Your task to perform on an android device: snooze an email in the gmail app Image 0: 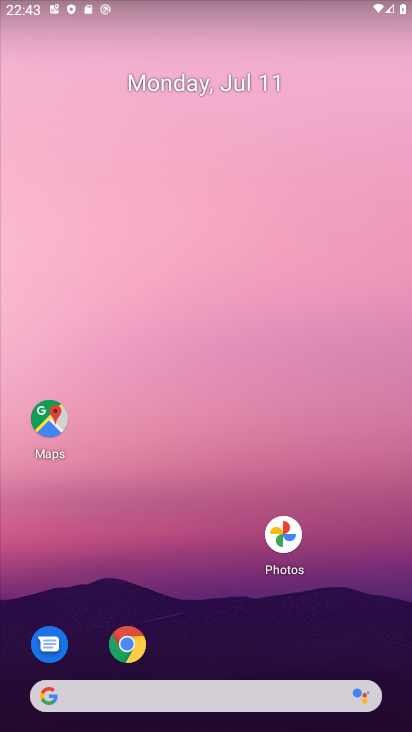
Step 0: click (274, 98)
Your task to perform on an android device: snooze an email in the gmail app Image 1: 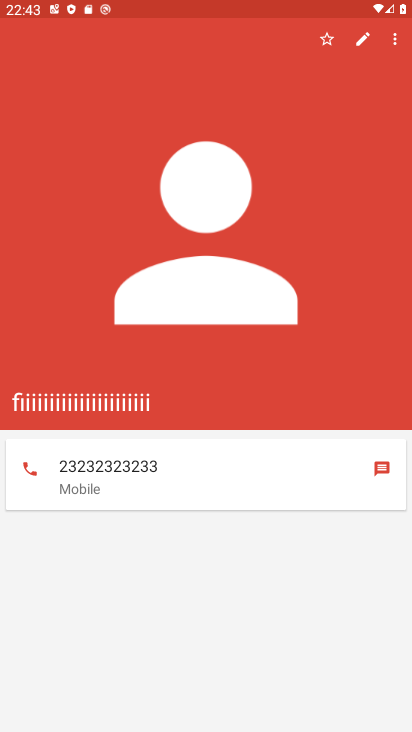
Step 1: press back button
Your task to perform on an android device: snooze an email in the gmail app Image 2: 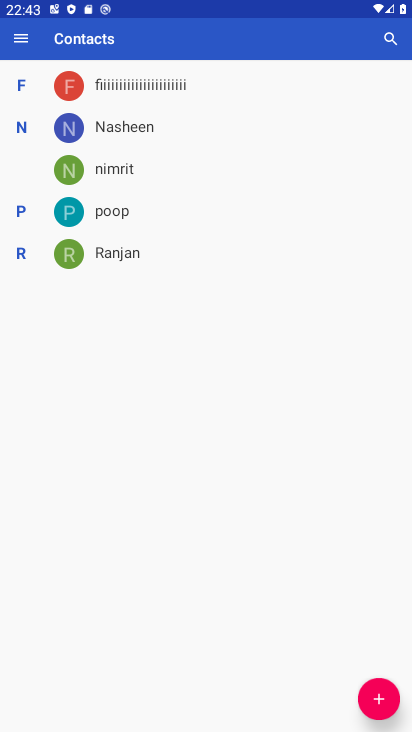
Step 2: press back button
Your task to perform on an android device: snooze an email in the gmail app Image 3: 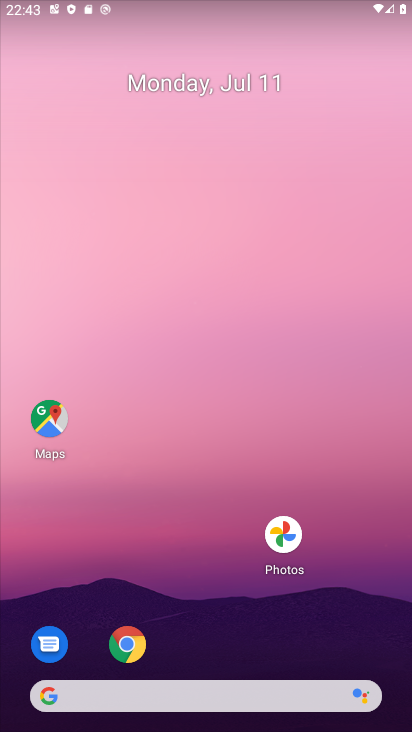
Step 3: press home button
Your task to perform on an android device: snooze an email in the gmail app Image 4: 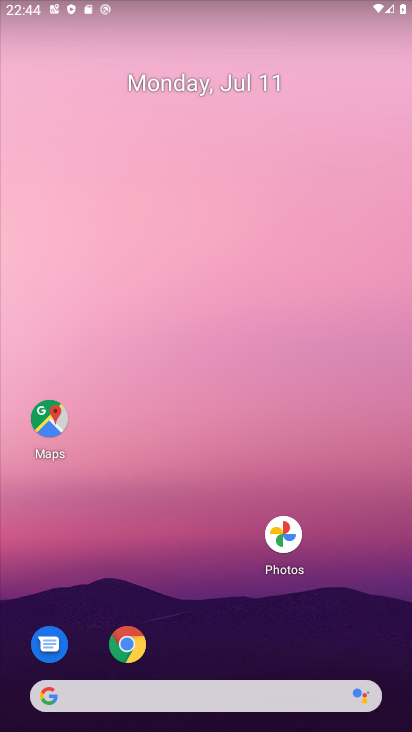
Step 4: press back button
Your task to perform on an android device: snooze an email in the gmail app Image 5: 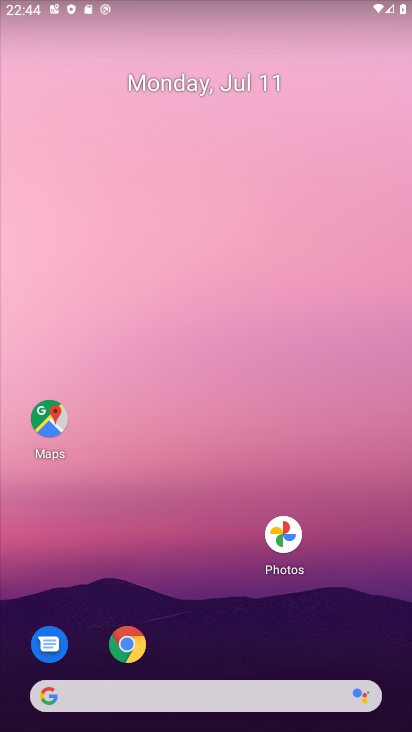
Step 5: drag from (274, 464) to (274, 176)
Your task to perform on an android device: snooze an email in the gmail app Image 6: 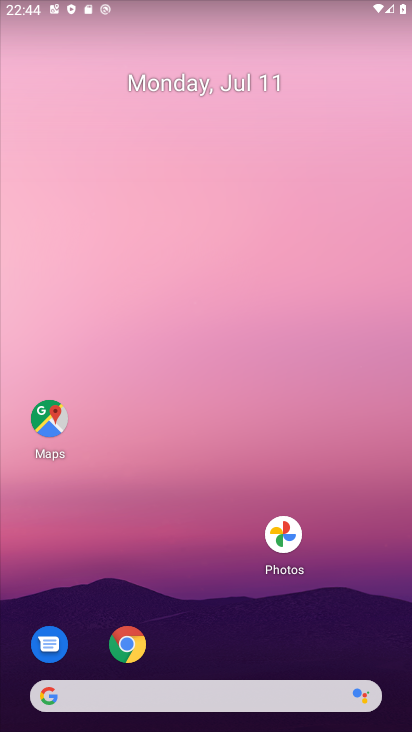
Step 6: drag from (209, 662) to (221, 191)
Your task to perform on an android device: snooze an email in the gmail app Image 7: 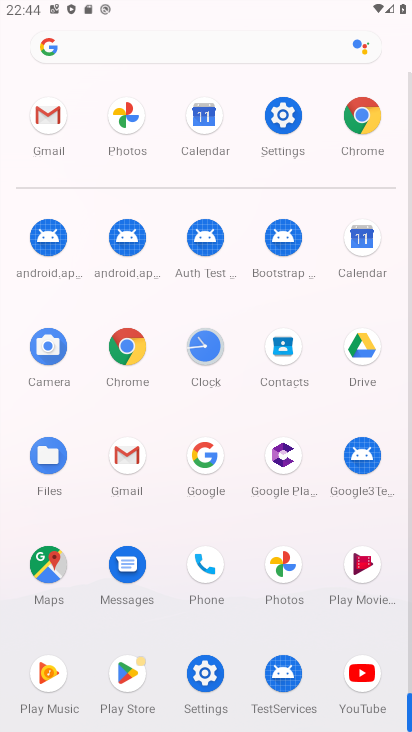
Step 7: drag from (276, 588) to (248, 191)
Your task to perform on an android device: snooze an email in the gmail app Image 8: 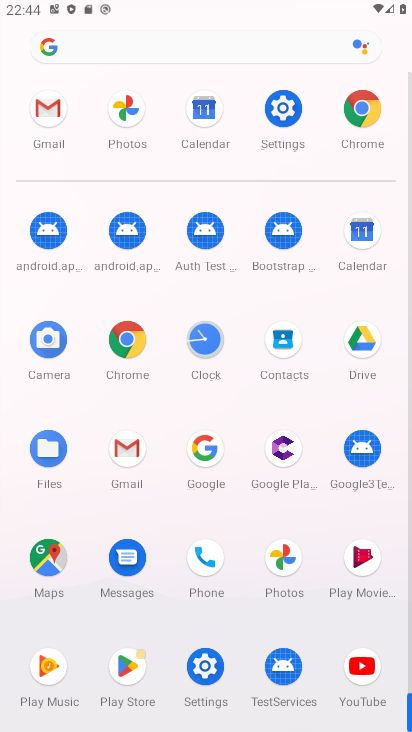
Step 8: click (278, 123)
Your task to perform on an android device: snooze an email in the gmail app Image 9: 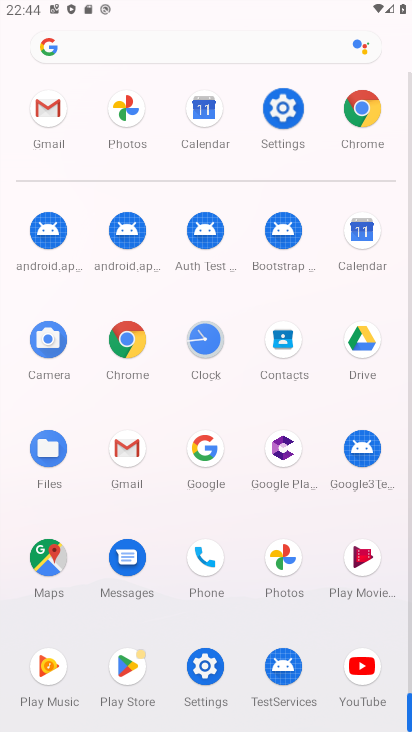
Step 9: click (278, 123)
Your task to perform on an android device: snooze an email in the gmail app Image 10: 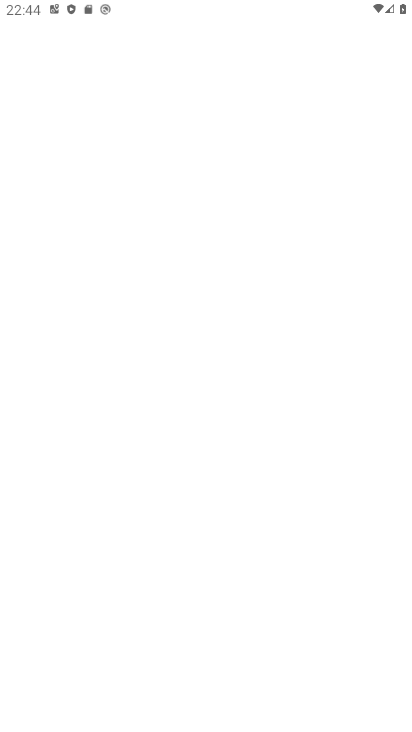
Step 10: click (282, 122)
Your task to perform on an android device: snooze an email in the gmail app Image 11: 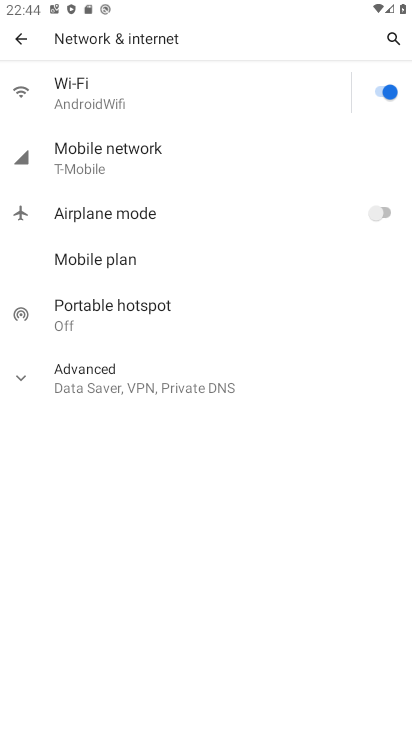
Step 11: click (18, 43)
Your task to perform on an android device: snooze an email in the gmail app Image 12: 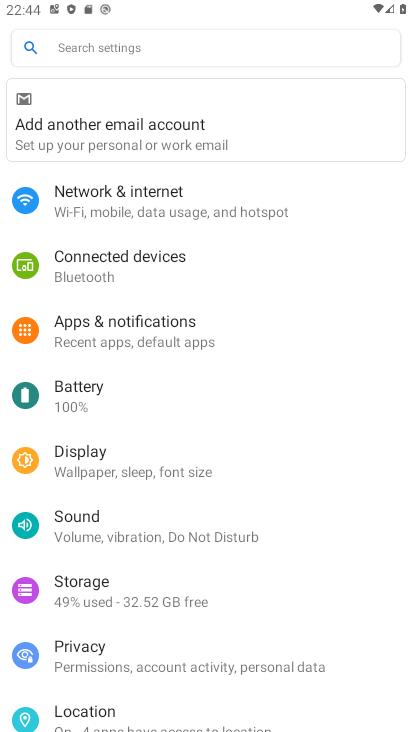
Step 12: press back button
Your task to perform on an android device: snooze an email in the gmail app Image 13: 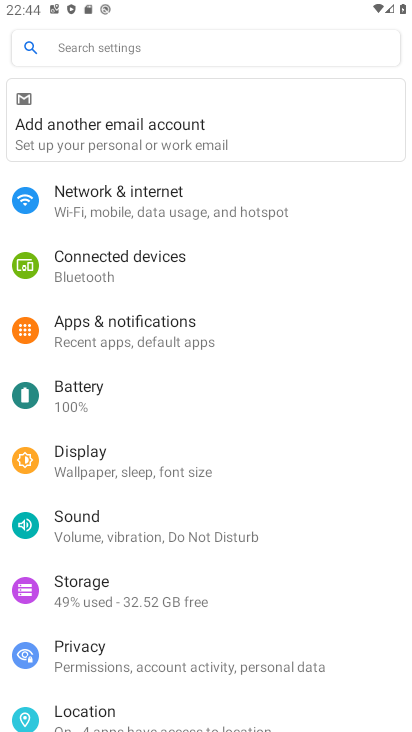
Step 13: press back button
Your task to perform on an android device: snooze an email in the gmail app Image 14: 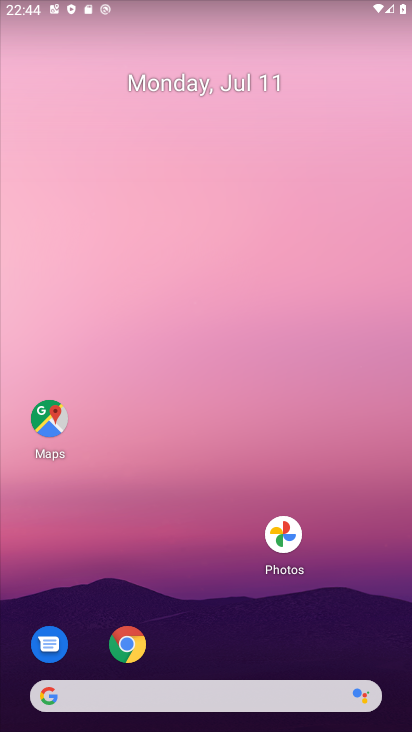
Step 14: drag from (215, 569) to (188, 29)
Your task to perform on an android device: snooze an email in the gmail app Image 15: 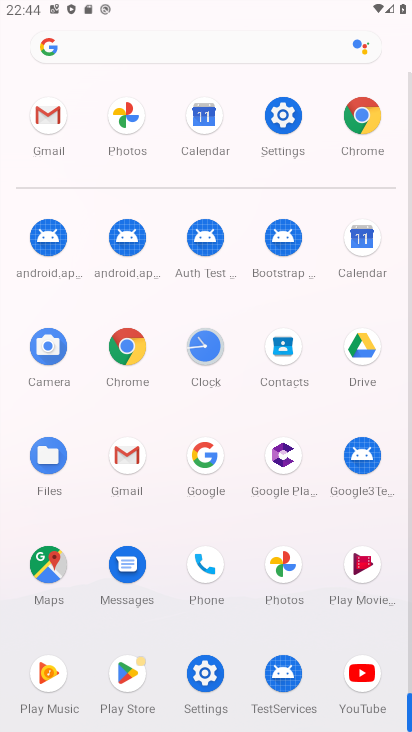
Step 15: click (120, 461)
Your task to perform on an android device: snooze an email in the gmail app Image 16: 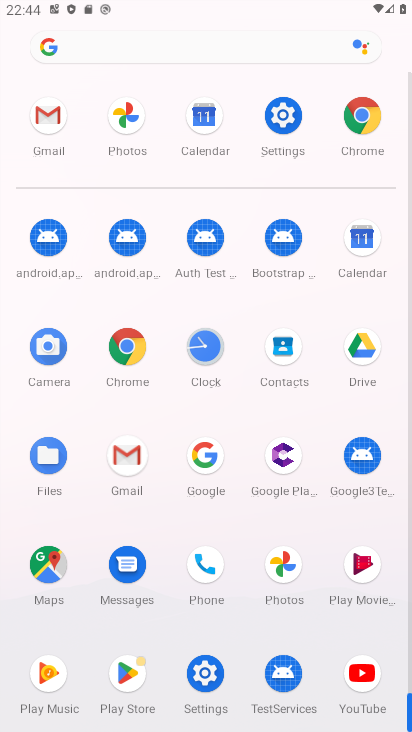
Step 16: click (128, 465)
Your task to perform on an android device: snooze an email in the gmail app Image 17: 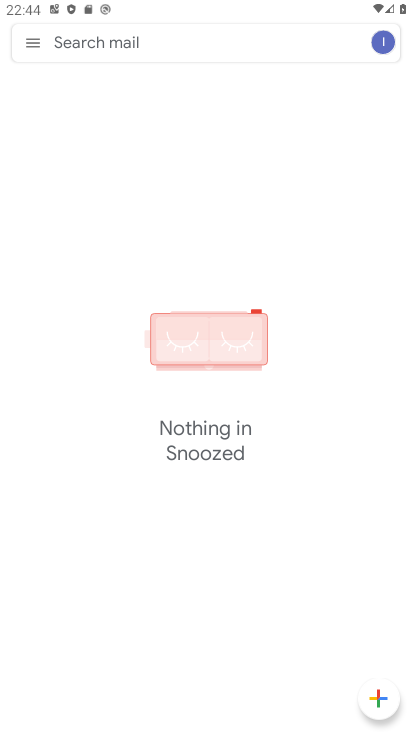
Step 17: click (199, 366)
Your task to perform on an android device: snooze an email in the gmail app Image 18: 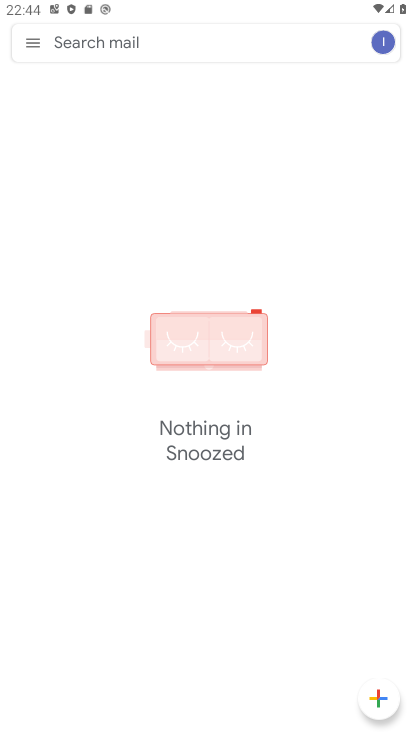
Step 18: click (197, 363)
Your task to perform on an android device: snooze an email in the gmail app Image 19: 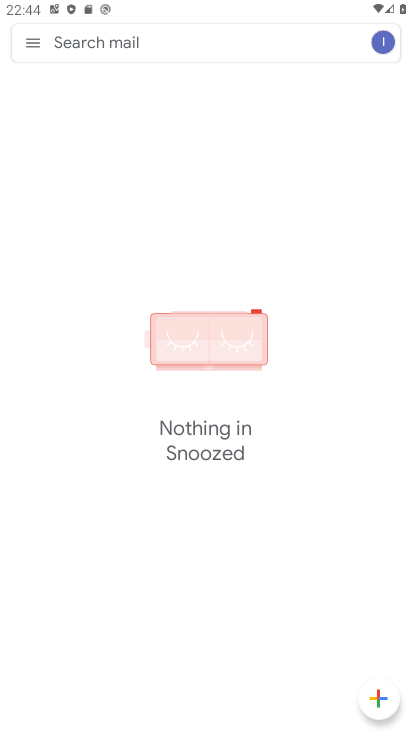
Step 19: click (197, 363)
Your task to perform on an android device: snooze an email in the gmail app Image 20: 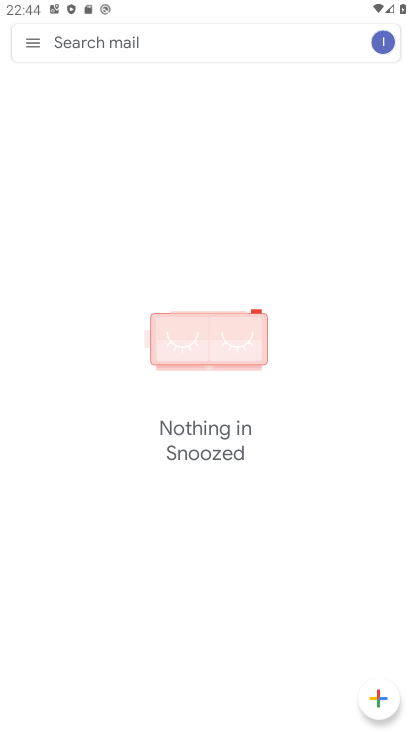
Step 20: click (198, 362)
Your task to perform on an android device: snooze an email in the gmail app Image 21: 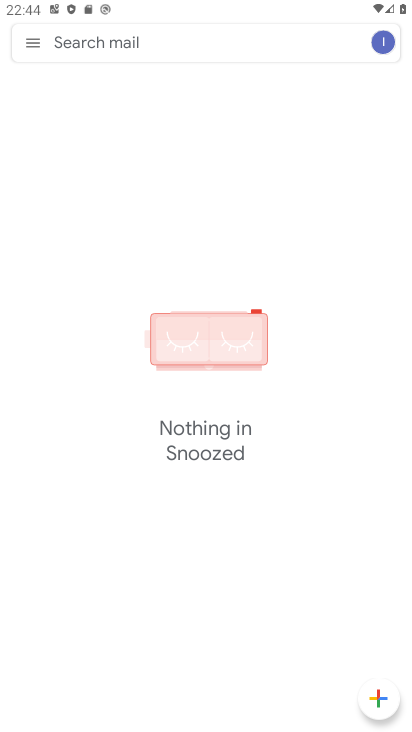
Step 21: click (198, 362)
Your task to perform on an android device: snooze an email in the gmail app Image 22: 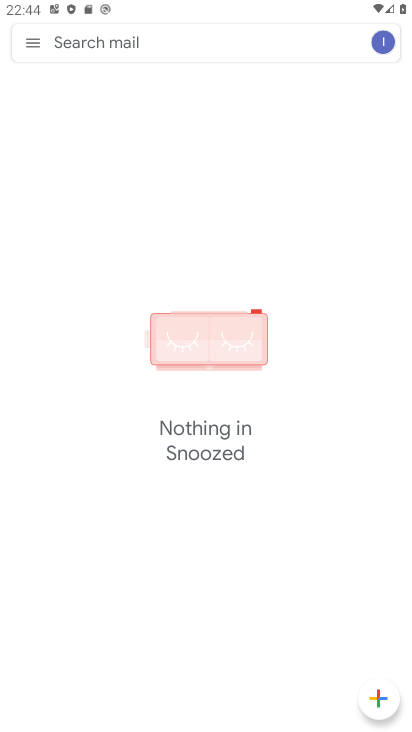
Step 22: click (199, 362)
Your task to perform on an android device: snooze an email in the gmail app Image 23: 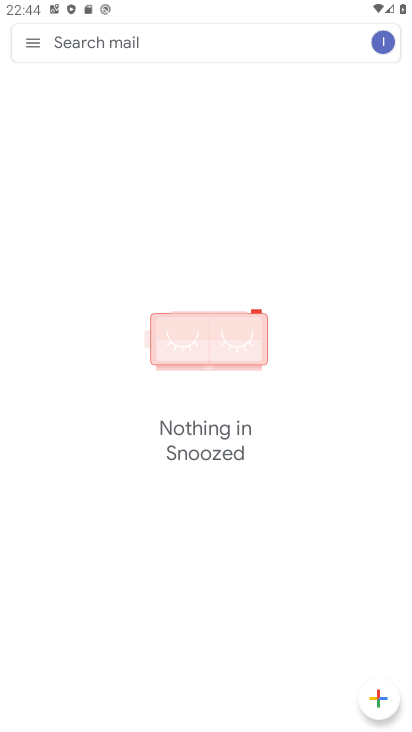
Step 23: task complete